Your task to perform on an android device: turn notification dots off Image 0: 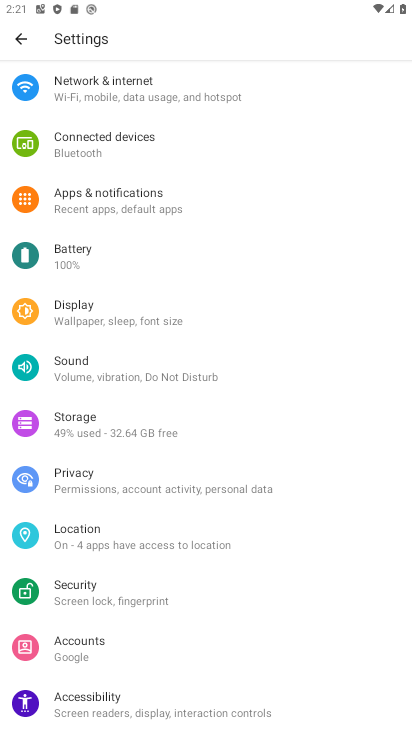
Step 0: click (197, 204)
Your task to perform on an android device: turn notification dots off Image 1: 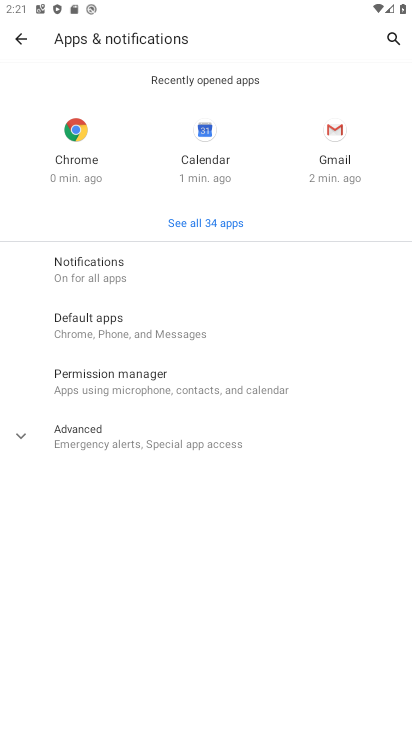
Step 1: click (151, 278)
Your task to perform on an android device: turn notification dots off Image 2: 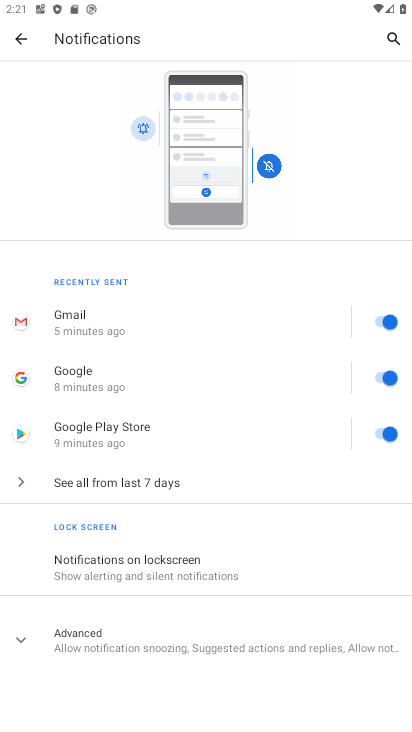
Step 2: click (262, 643)
Your task to perform on an android device: turn notification dots off Image 3: 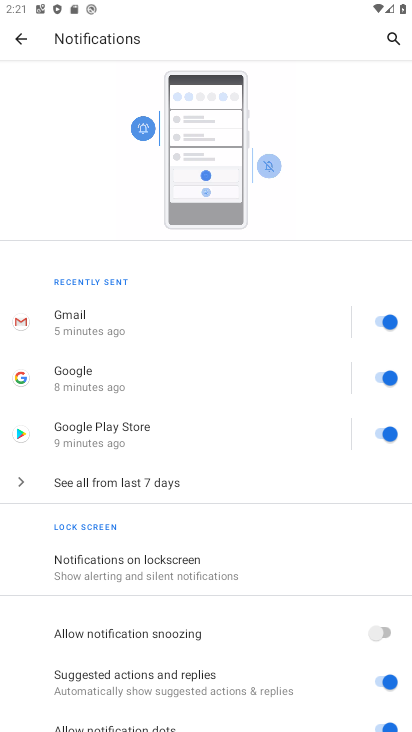
Step 3: drag from (306, 627) to (343, 329)
Your task to perform on an android device: turn notification dots off Image 4: 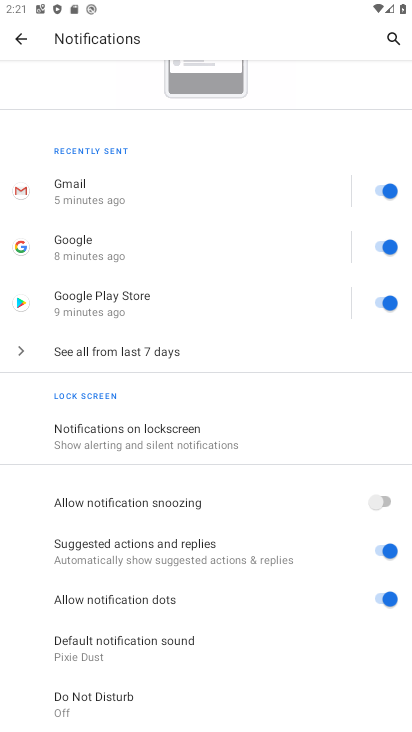
Step 4: click (390, 595)
Your task to perform on an android device: turn notification dots off Image 5: 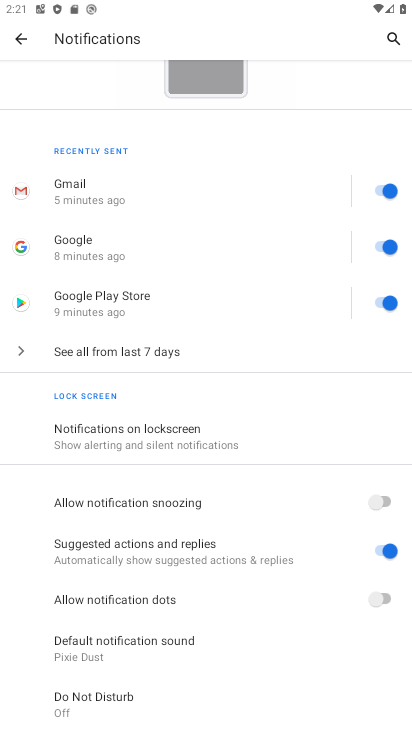
Step 5: task complete